Your task to perform on an android device: check android version Image 0: 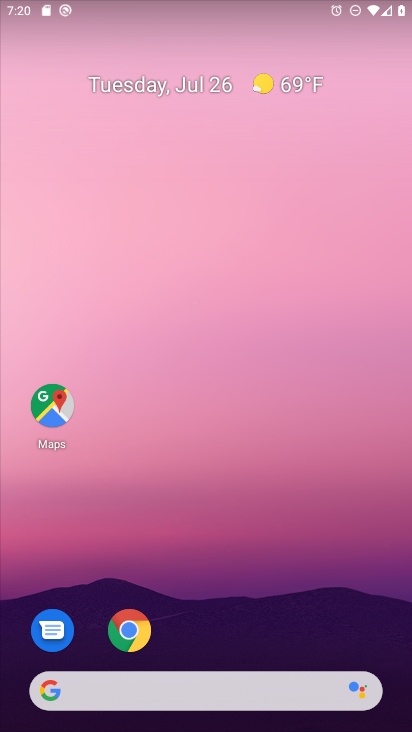
Step 0: drag from (244, 630) to (246, 158)
Your task to perform on an android device: check android version Image 1: 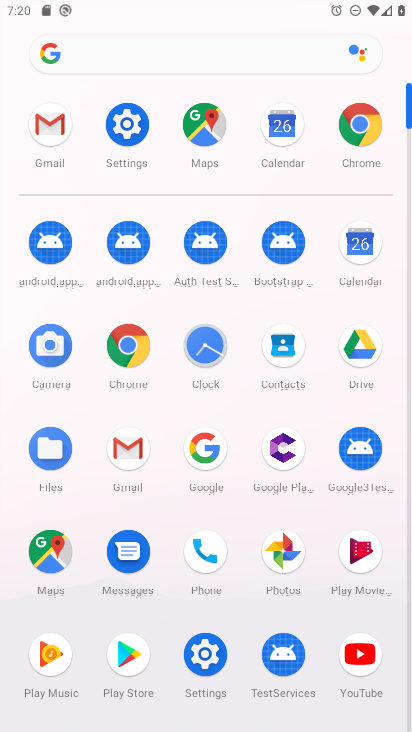
Step 1: click (200, 668)
Your task to perform on an android device: check android version Image 2: 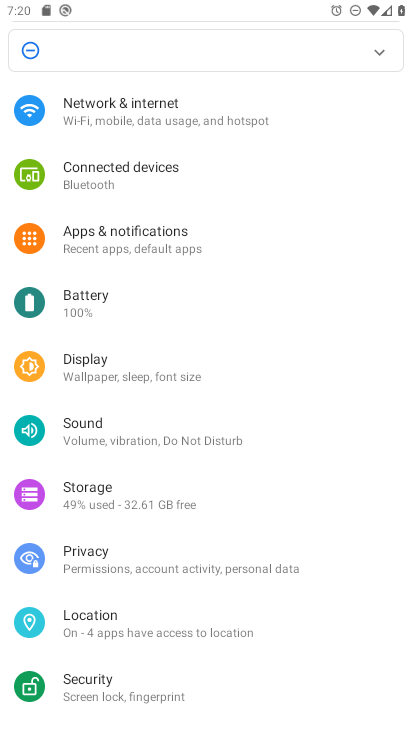
Step 2: drag from (214, 649) to (247, 141)
Your task to perform on an android device: check android version Image 3: 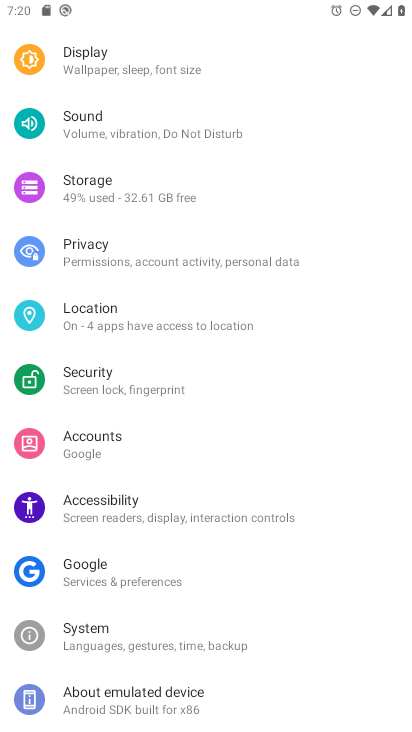
Step 3: click (149, 686)
Your task to perform on an android device: check android version Image 4: 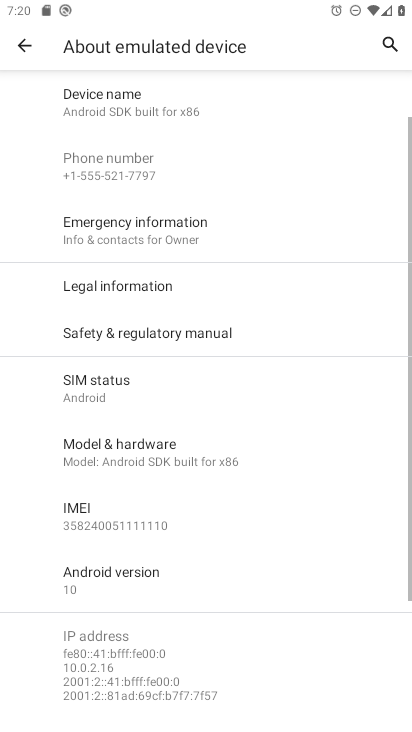
Step 4: click (139, 587)
Your task to perform on an android device: check android version Image 5: 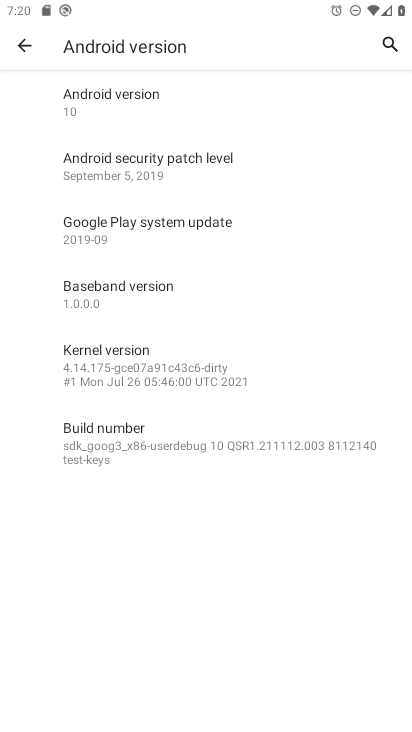
Step 5: task complete